Your task to perform on an android device: set default search engine in the chrome app Image 0: 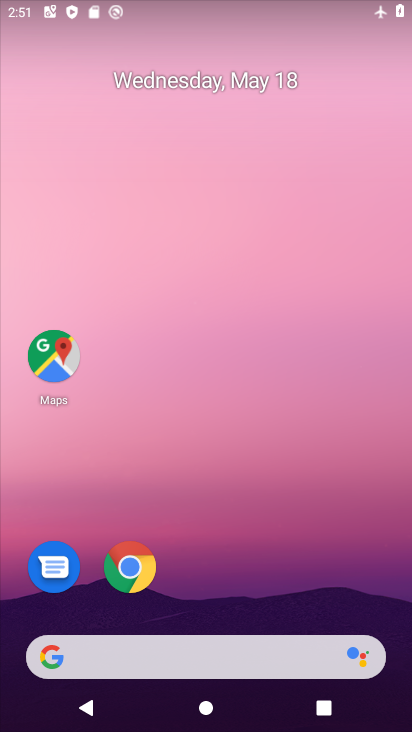
Step 0: click (135, 561)
Your task to perform on an android device: set default search engine in the chrome app Image 1: 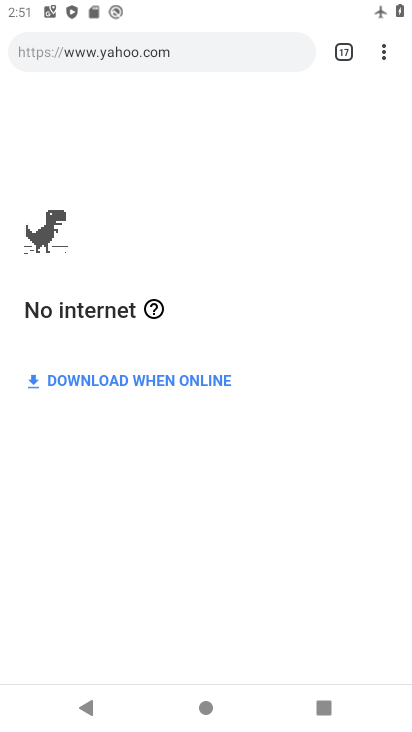
Step 1: click (381, 51)
Your task to perform on an android device: set default search engine in the chrome app Image 2: 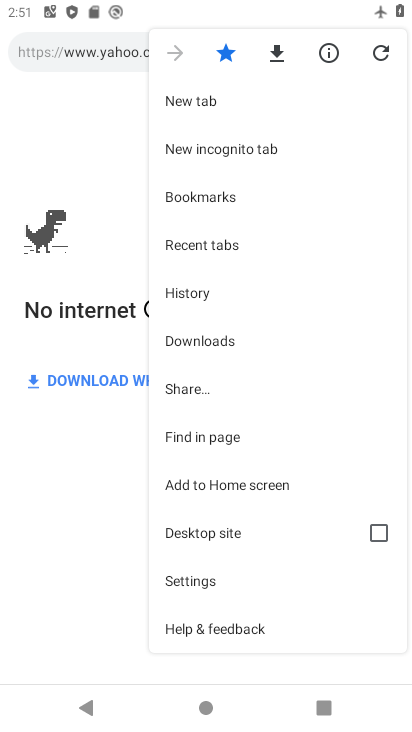
Step 2: click (211, 576)
Your task to perform on an android device: set default search engine in the chrome app Image 3: 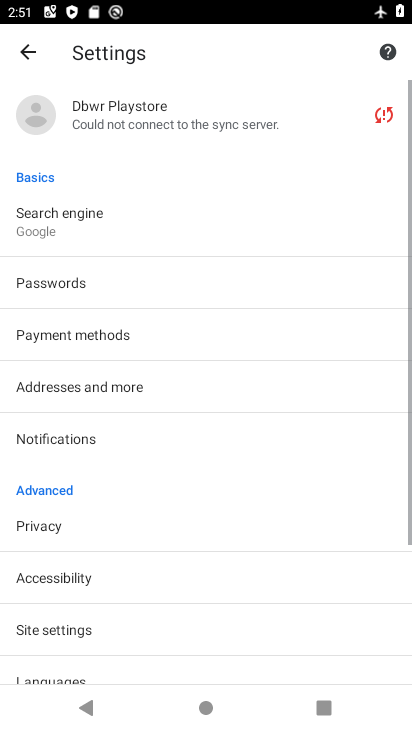
Step 3: click (98, 219)
Your task to perform on an android device: set default search engine in the chrome app Image 4: 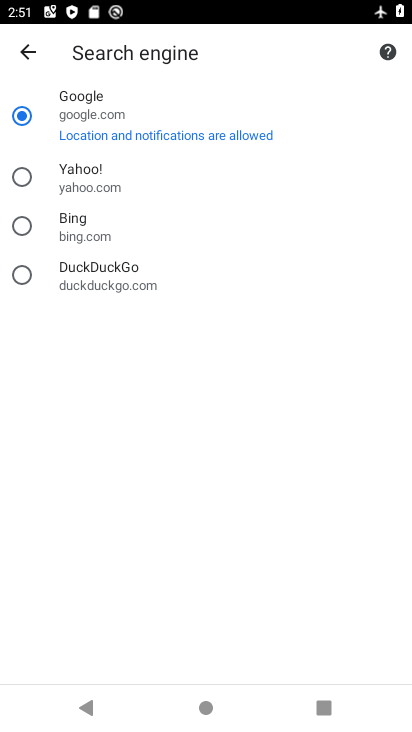
Step 4: click (98, 233)
Your task to perform on an android device: set default search engine in the chrome app Image 5: 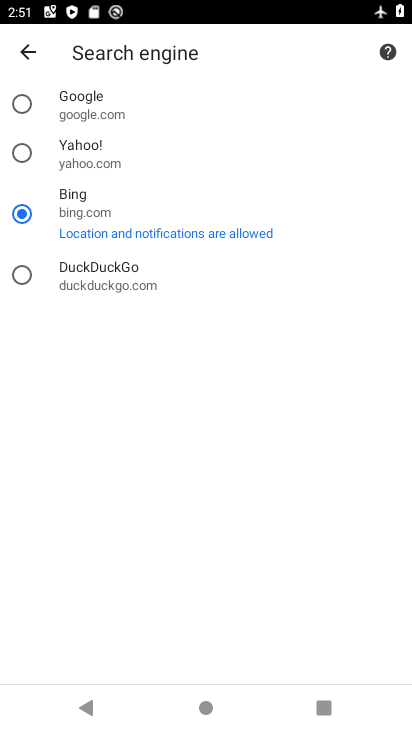
Step 5: task complete